Your task to perform on an android device: How much does the Sony TV cost? Image 0: 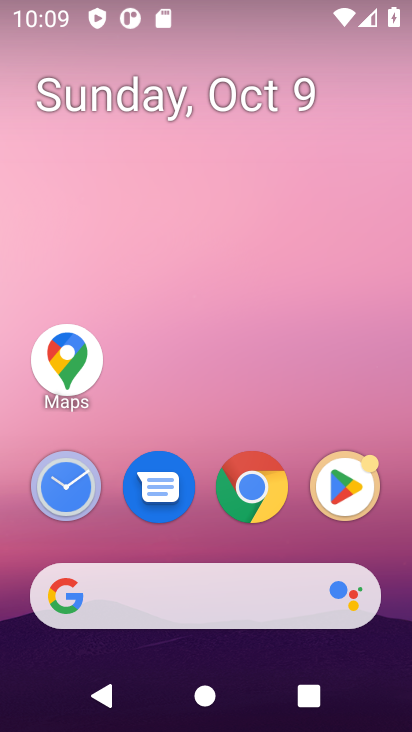
Step 0: drag from (217, 499) to (149, 31)
Your task to perform on an android device: How much does the Sony TV cost? Image 1: 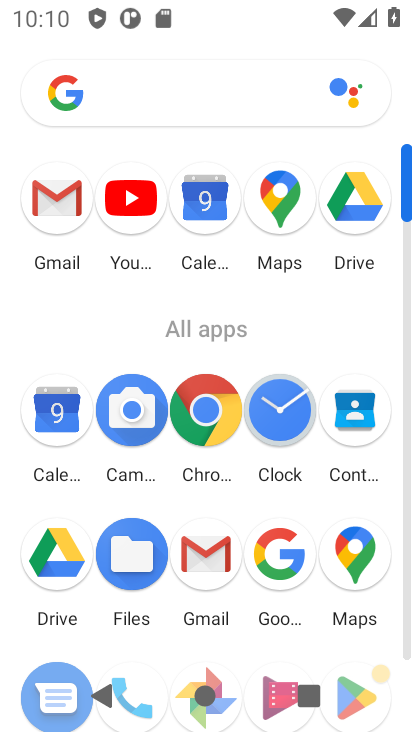
Step 1: click (208, 413)
Your task to perform on an android device: How much does the Sony TV cost? Image 2: 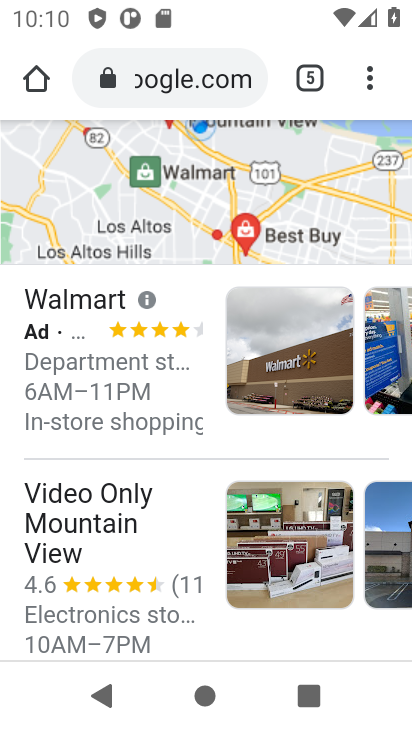
Step 2: drag from (368, 79) to (109, 156)
Your task to perform on an android device: How much does the Sony TV cost? Image 3: 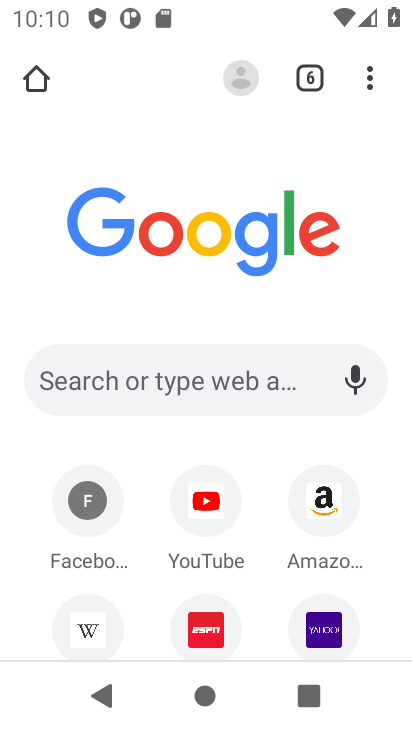
Step 3: click (148, 374)
Your task to perform on an android device: How much does the Sony TV cost? Image 4: 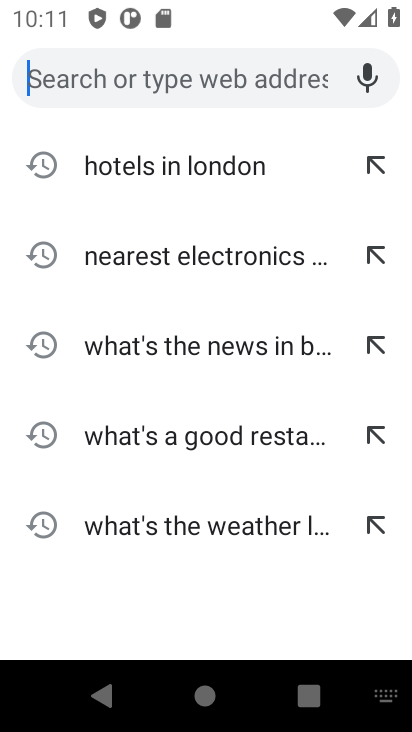
Step 4: type "How much does the Sony TV cost?"
Your task to perform on an android device: How much does the Sony TV cost? Image 5: 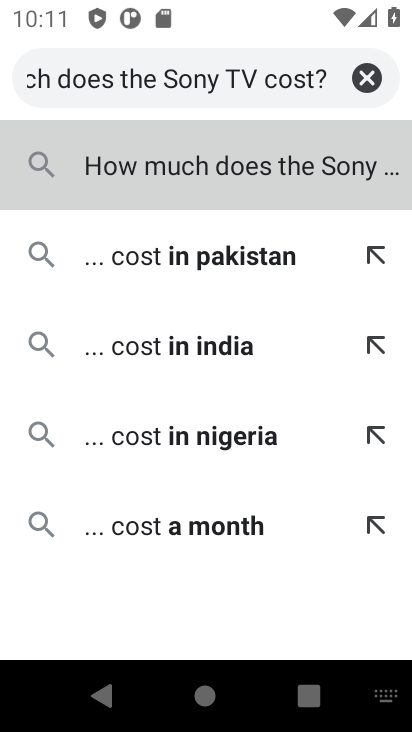
Step 5: click (259, 161)
Your task to perform on an android device: How much does the Sony TV cost? Image 6: 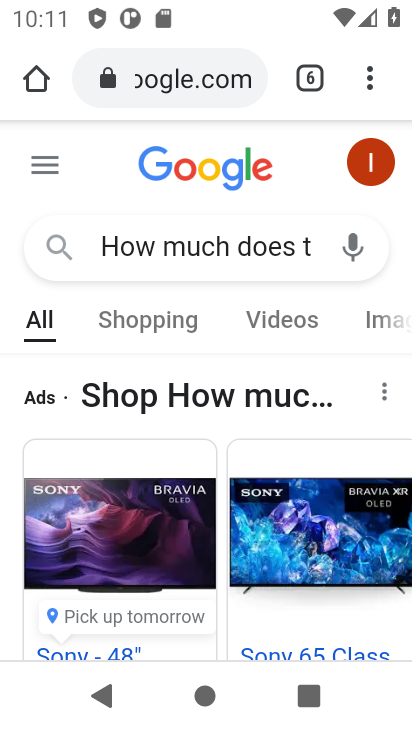
Step 6: task complete